Your task to perform on an android device: Is it going to rain tomorrow? Image 0: 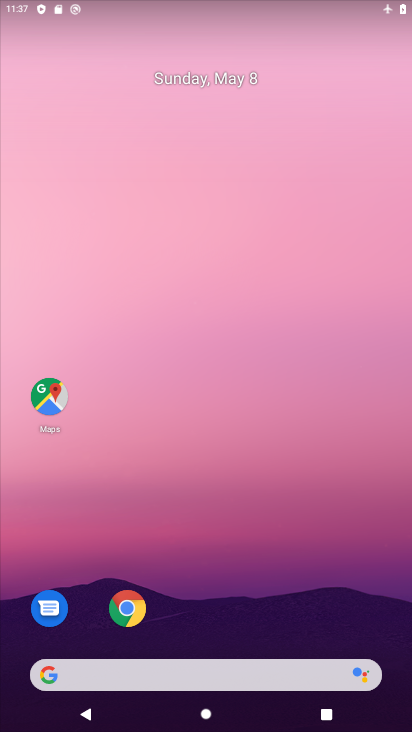
Step 0: drag from (9, 297) to (242, 308)
Your task to perform on an android device: Is it going to rain tomorrow? Image 1: 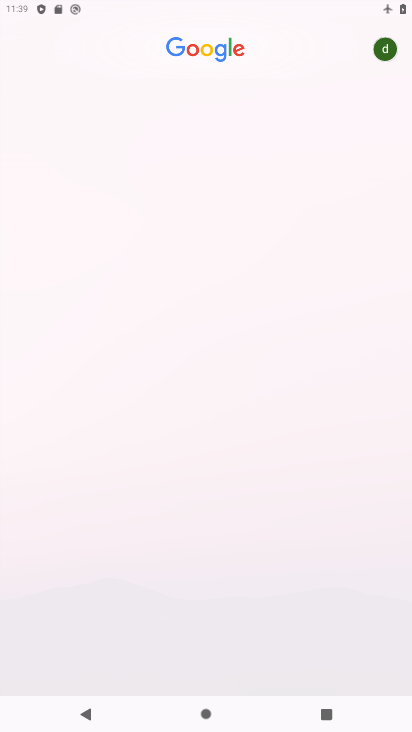
Step 1: press home button
Your task to perform on an android device: Is it going to rain tomorrow? Image 2: 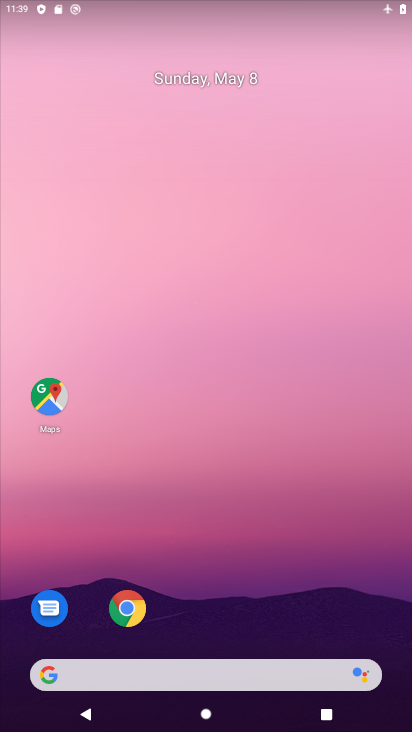
Step 2: click (269, 674)
Your task to perform on an android device: Is it going to rain tomorrow? Image 3: 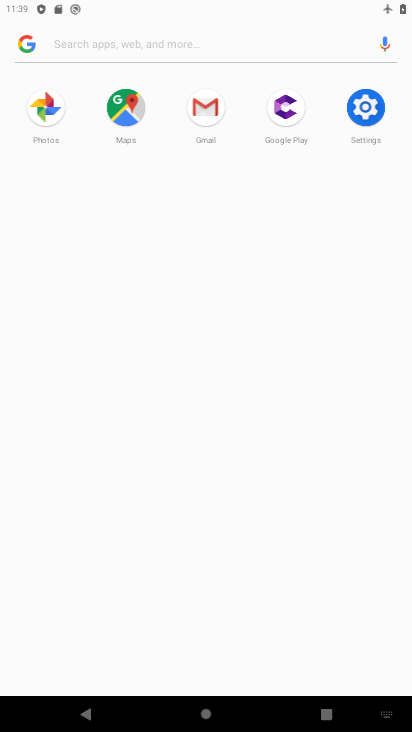
Step 3: type "weather "
Your task to perform on an android device: Is it going to rain tomorrow? Image 4: 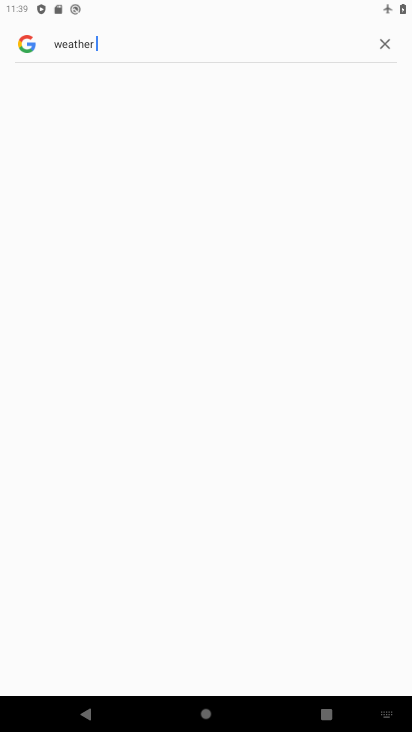
Step 4: task complete